Your task to perform on an android device: toggle priority inbox in the gmail app Image 0: 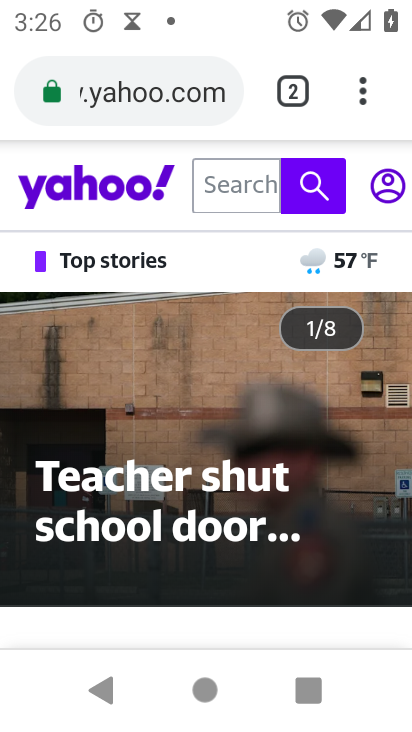
Step 0: press home button
Your task to perform on an android device: toggle priority inbox in the gmail app Image 1: 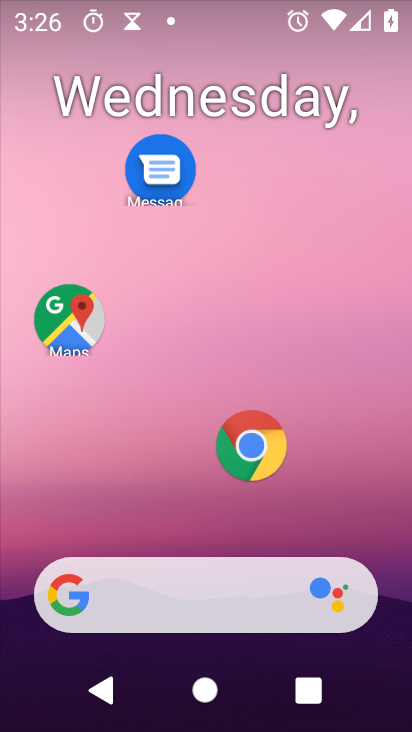
Step 1: drag from (55, 638) to (345, 184)
Your task to perform on an android device: toggle priority inbox in the gmail app Image 2: 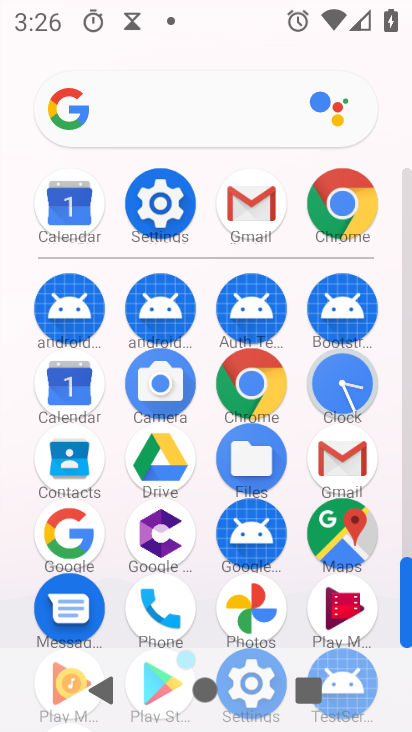
Step 2: click (246, 183)
Your task to perform on an android device: toggle priority inbox in the gmail app Image 3: 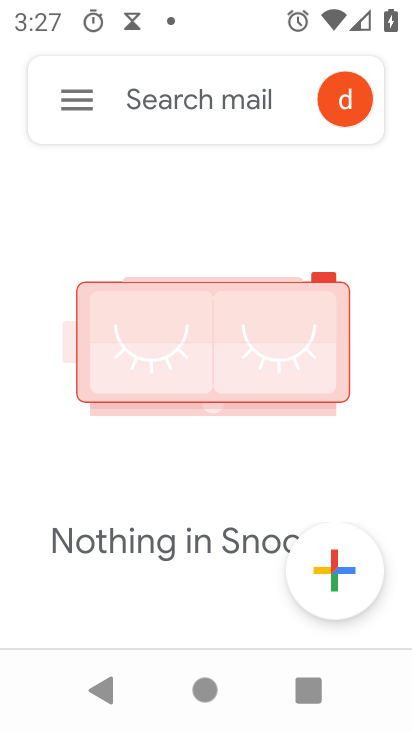
Step 3: click (74, 89)
Your task to perform on an android device: toggle priority inbox in the gmail app Image 4: 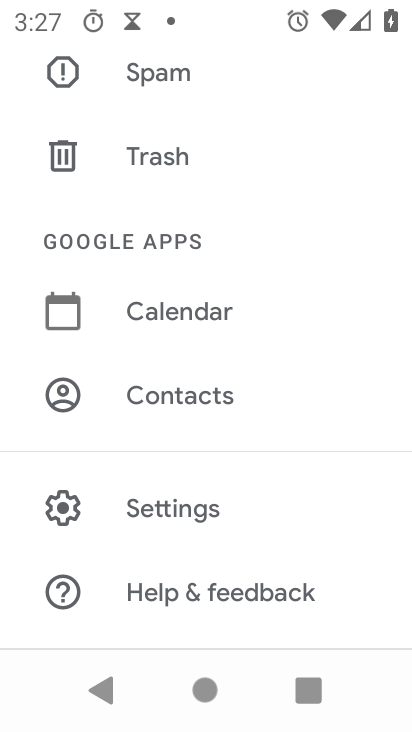
Step 4: click (121, 513)
Your task to perform on an android device: toggle priority inbox in the gmail app Image 5: 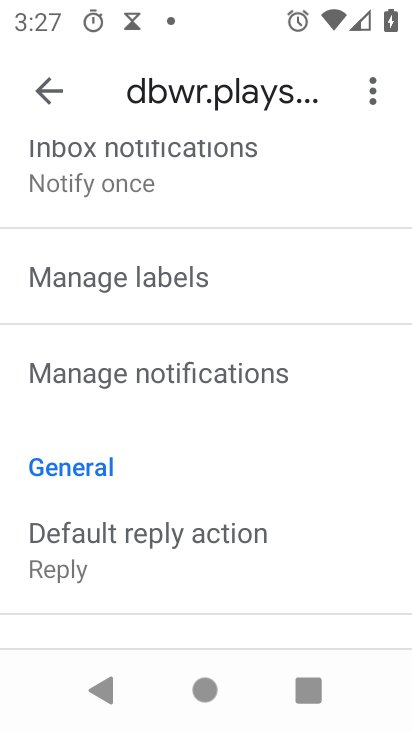
Step 5: drag from (104, 224) to (107, 463)
Your task to perform on an android device: toggle priority inbox in the gmail app Image 6: 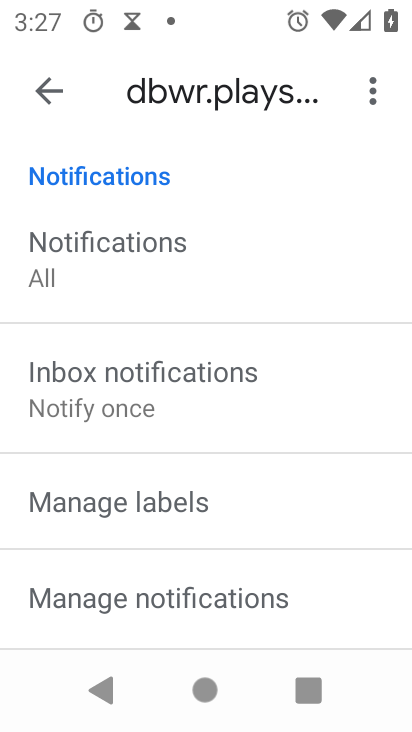
Step 6: drag from (181, 270) to (98, 585)
Your task to perform on an android device: toggle priority inbox in the gmail app Image 7: 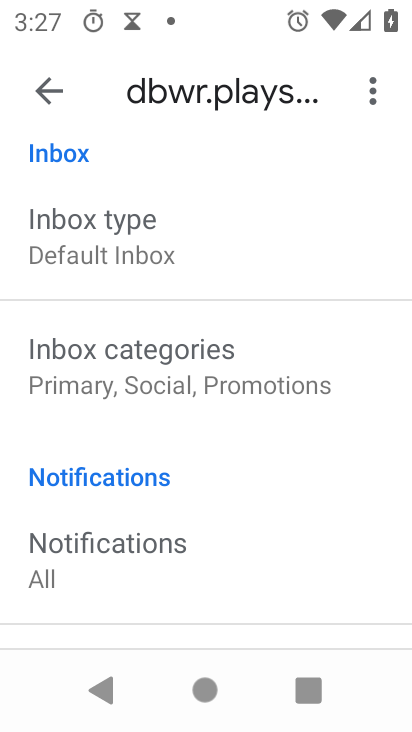
Step 7: click (122, 250)
Your task to perform on an android device: toggle priority inbox in the gmail app Image 8: 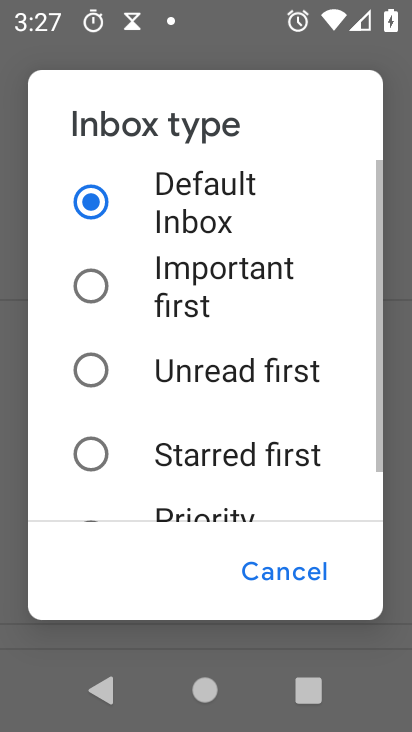
Step 8: drag from (26, 470) to (224, 167)
Your task to perform on an android device: toggle priority inbox in the gmail app Image 9: 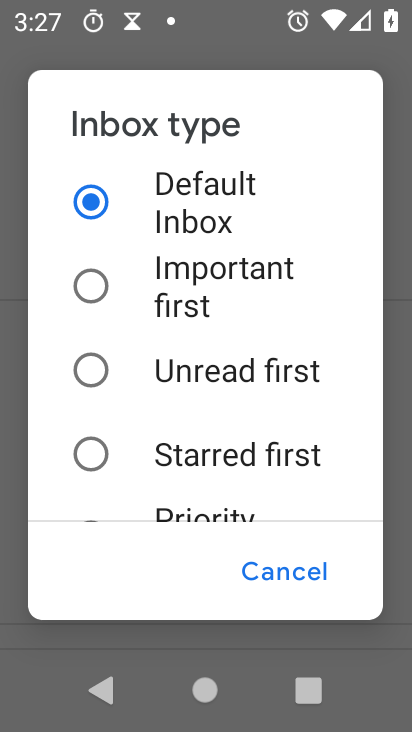
Step 9: drag from (104, 483) to (265, 113)
Your task to perform on an android device: toggle priority inbox in the gmail app Image 10: 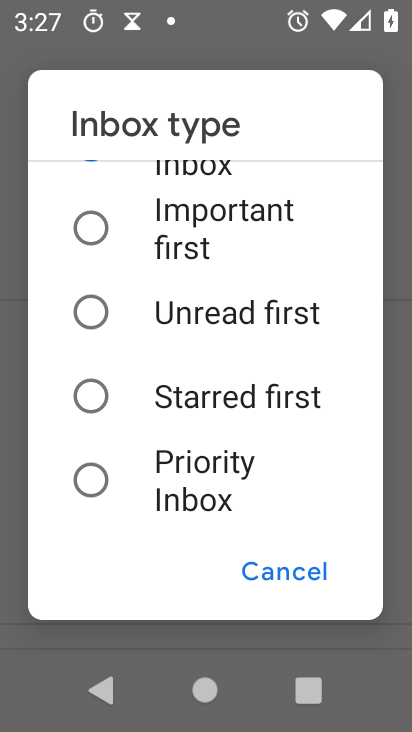
Step 10: click (88, 473)
Your task to perform on an android device: toggle priority inbox in the gmail app Image 11: 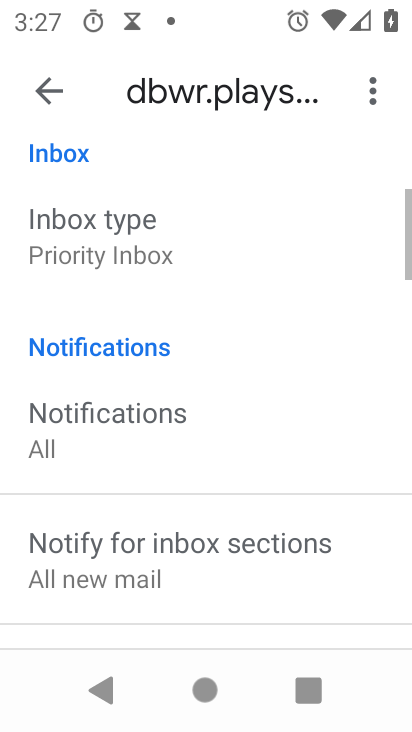
Step 11: task complete